Your task to perform on an android device: Go to Yahoo.com Image 0: 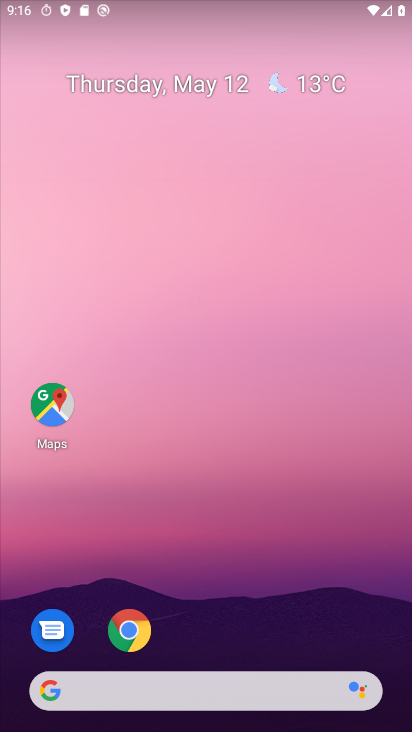
Step 0: click (317, 484)
Your task to perform on an android device: Go to Yahoo.com Image 1: 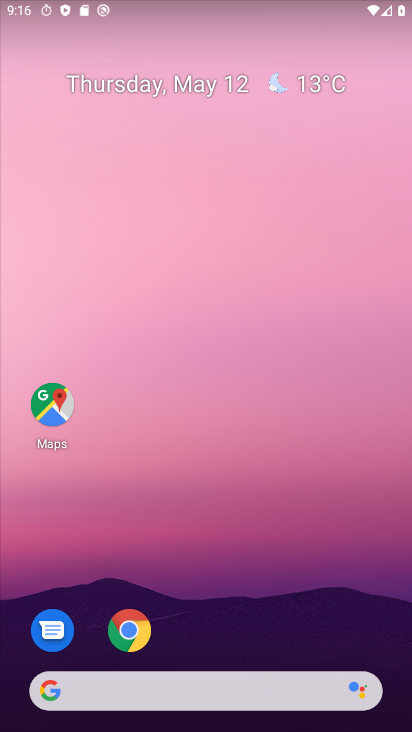
Step 1: click (130, 634)
Your task to perform on an android device: Go to Yahoo.com Image 2: 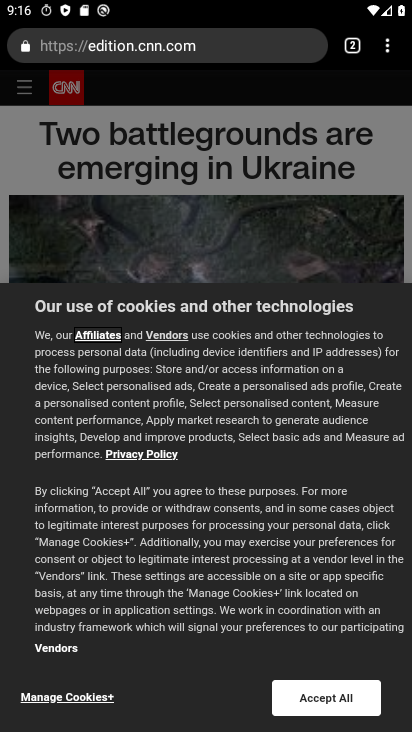
Step 2: click (194, 48)
Your task to perform on an android device: Go to Yahoo.com Image 3: 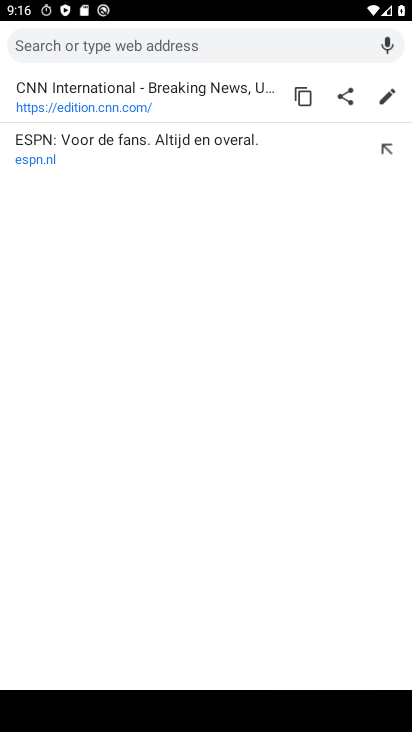
Step 3: type "yahoo.com"
Your task to perform on an android device: Go to Yahoo.com Image 4: 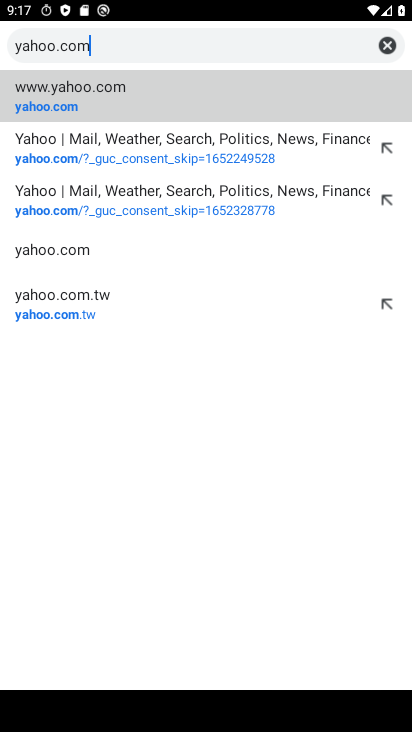
Step 4: click (71, 101)
Your task to perform on an android device: Go to Yahoo.com Image 5: 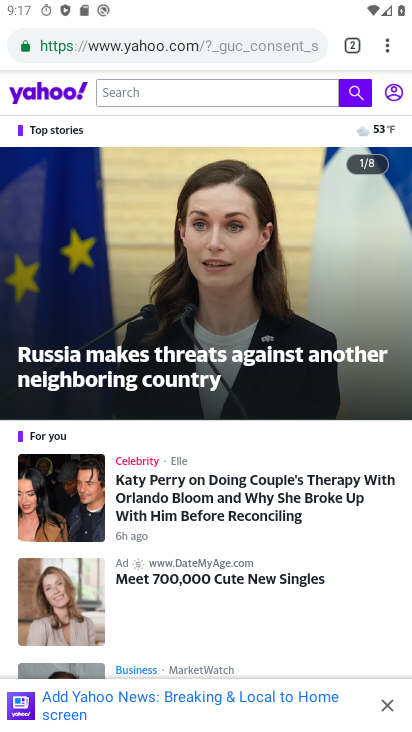
Step 5: task complete